Your task to perform on an android device: open a new tab in the chrome app Image 0: 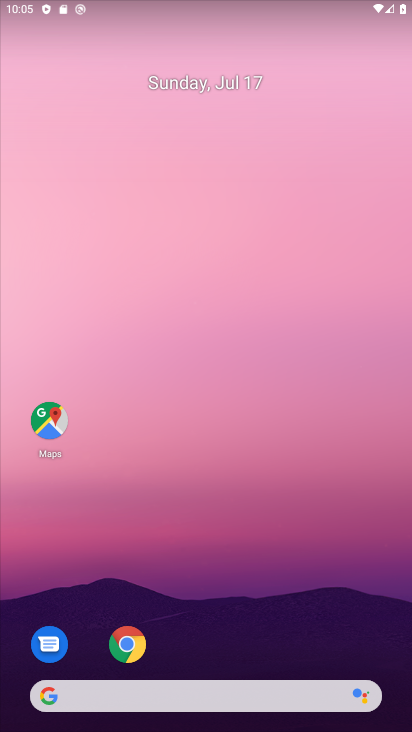
Step 0: drag from (293, 638) to (216, 145)
Your task to perform on an android device: open a new tab in the chrome app Image 1: 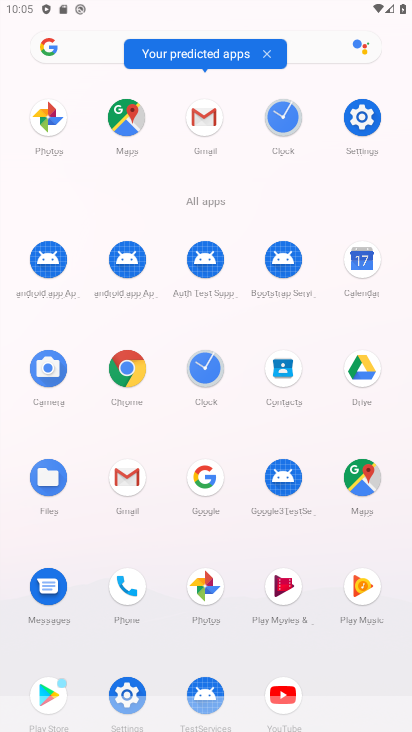
Step 1: click (128, 362)
Your task to perform on an android device: open a new tab in the chrome app Image 2: 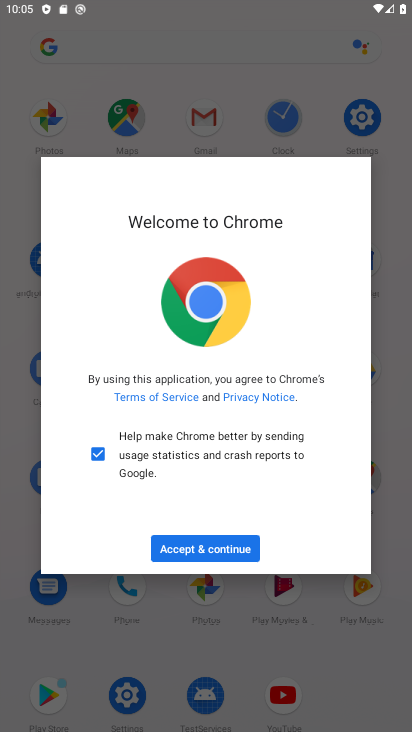
Step 2: click (193, 545)
Your task to perform on an android device: open a new tab in the chrome app Image 3: 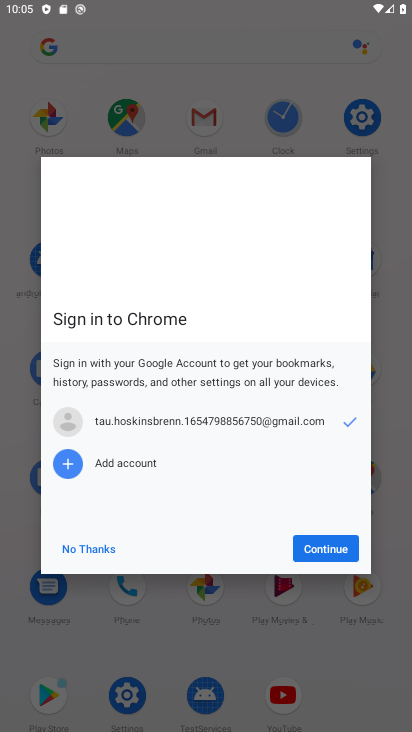
Step 3: click (312, 545)
Your task to perform on an android device: open a new tab in the chrome app Image 4: 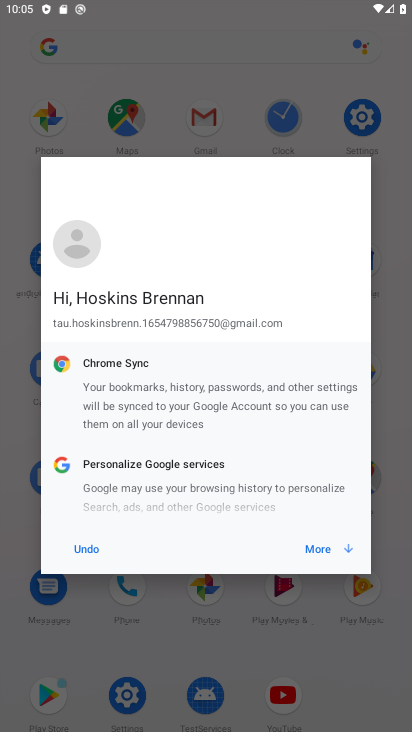
Step 4: click (318, 541)
Your task to perform on an android device: open a new tab in the chrome app Image 5: 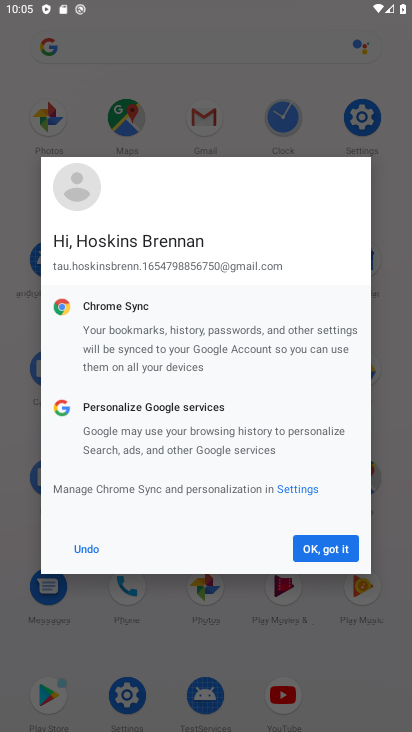
Step 5: click (320, 547)
Your task to perform on an android device: open a new tab in the chrome app Image 6: 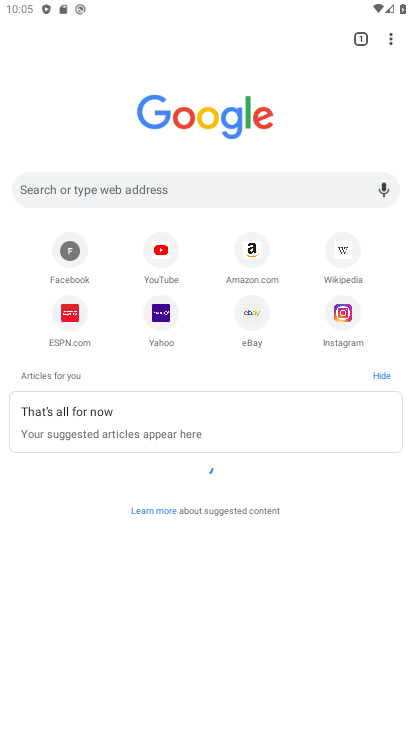
Step 6: click (358, 35)
Your task to perform on an android device: open a new tab in the chrome app Image 7: 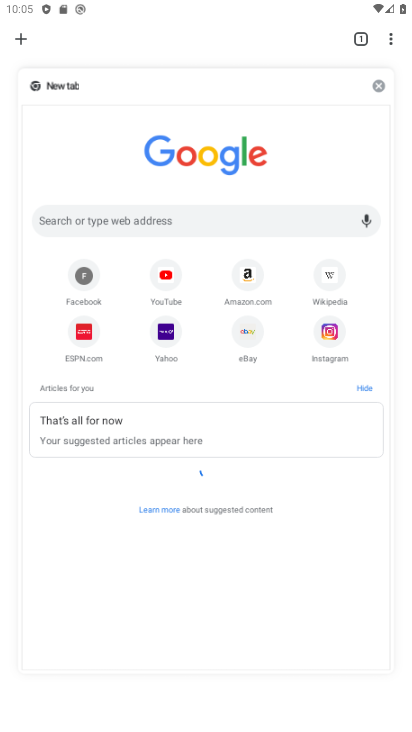
Step 7: click (23, 34)
Your task to perform on an android device: open a new tab in the chrome app Image 8: 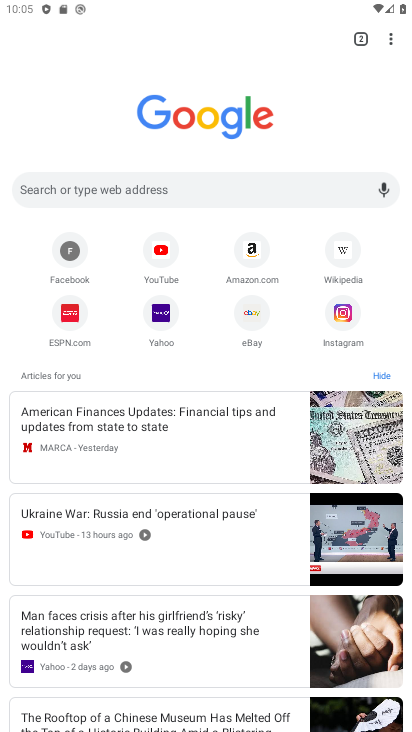
Step 8: task complete